Your task to perform on an android device: View the shopping cart on bestbuy. Search for alienware area 51 on bestbuy, select the first entry, and add it to the cart. Image 0: 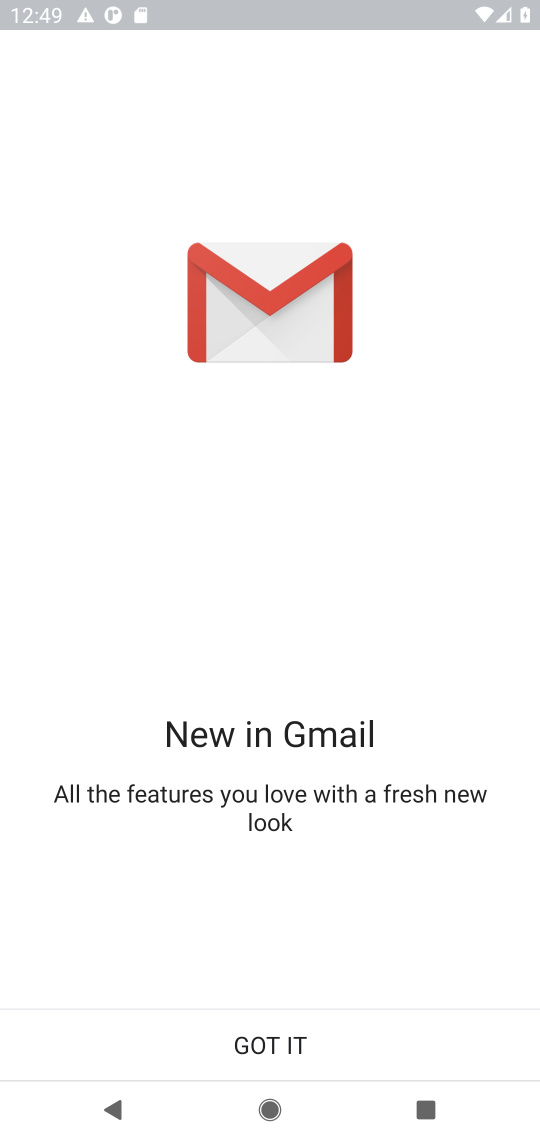
Step 0: press home button
Your task to perform on an android device: View the shopping cart on bestbuy. Search for alienware area 51 on bestbuy, select the first entry, and add it to the cart. Image 1: 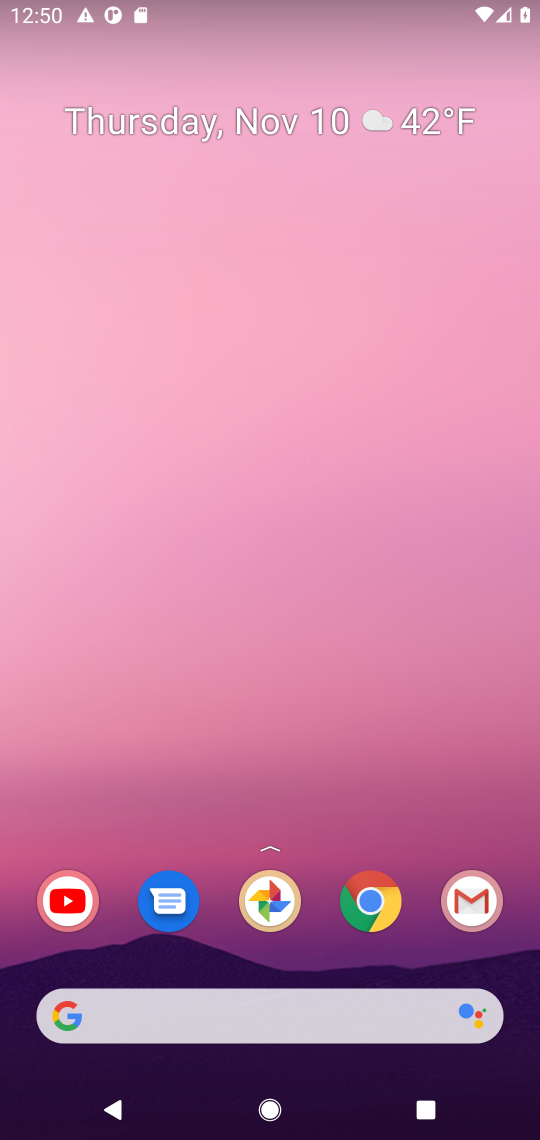
Step 1: drag from (340, 843) to (305, 11)
Your task to perform on an android device: View the shopping cart on bestbuy. Search for alienware area 51 on bestbuy, select the first entry, and add it to the cart. Image 2: 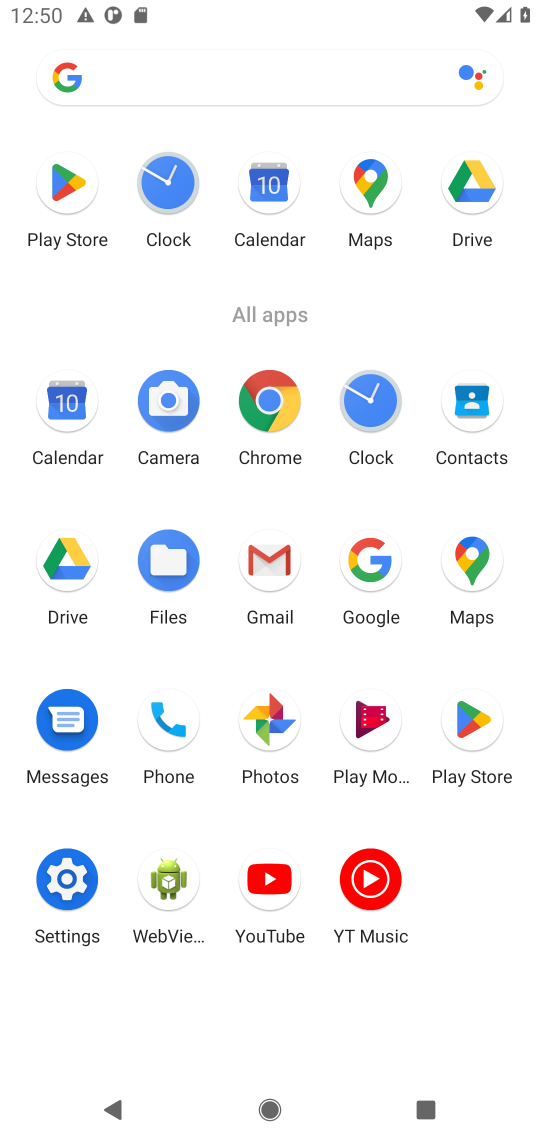
Step 2: click (263, 413)
Your task to perform on an android device: View the shopping cart on bestbuy. Search for alienware area 51 on bestbuy, select the first entry, and add it to the cart. Image 3: 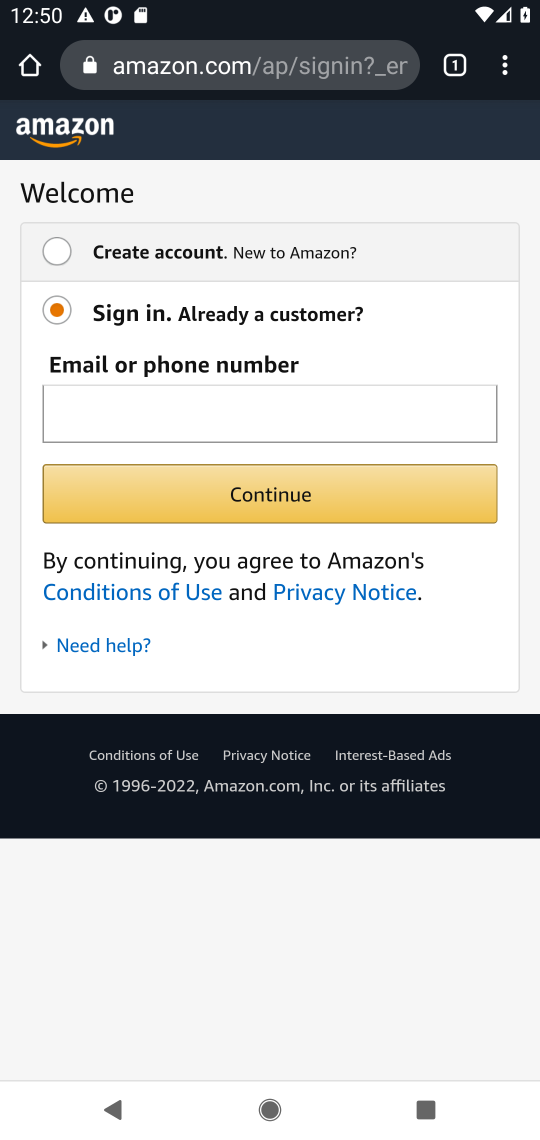
Step 3: click (166, 63)
Your task to perform on an android device: View the shopping cart on bestbuy. Search for alienware area 51 on bestbuy, select the first entry, and add it to the cart. Image 4: 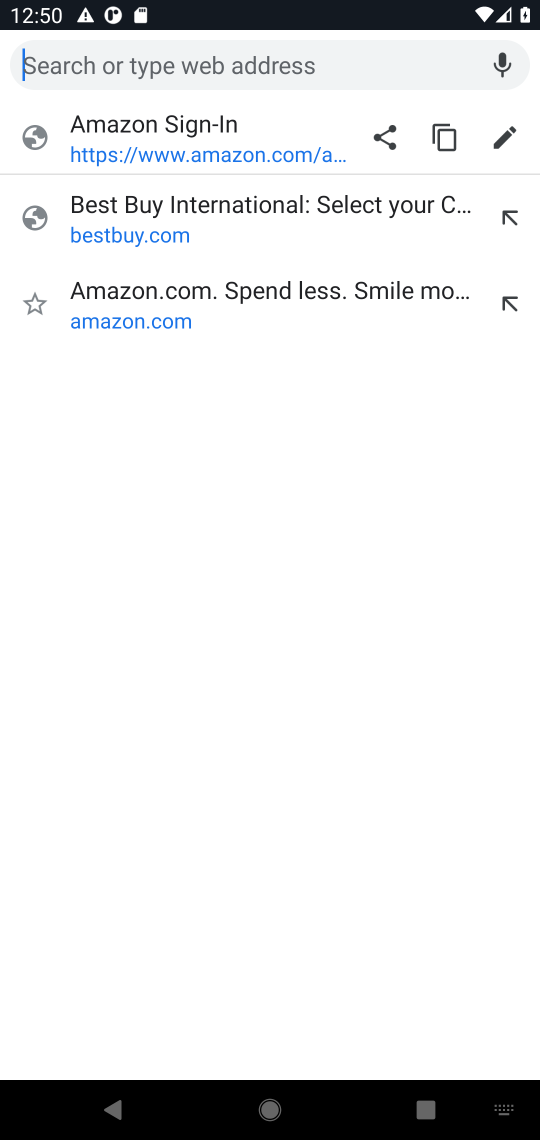
Step 4: type "bestbuy"
Your task to perform on an android device: View the shopping cart on bestbuy. Search for alienware area 51 on bestbuy, select the first entry, and add it to the cart. Image 5: 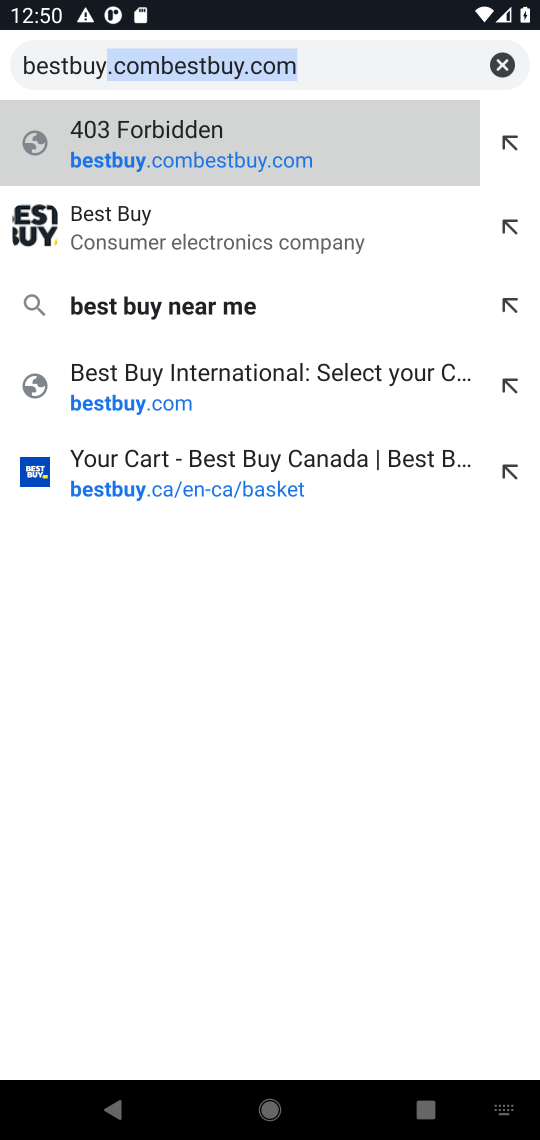
Step 5: press enter
Your task to perform on an android device: View the shopping cart on bestbuy. Search for alienware area 51 on bestbuy, select the first entry, and add it to the cart. Image 6: 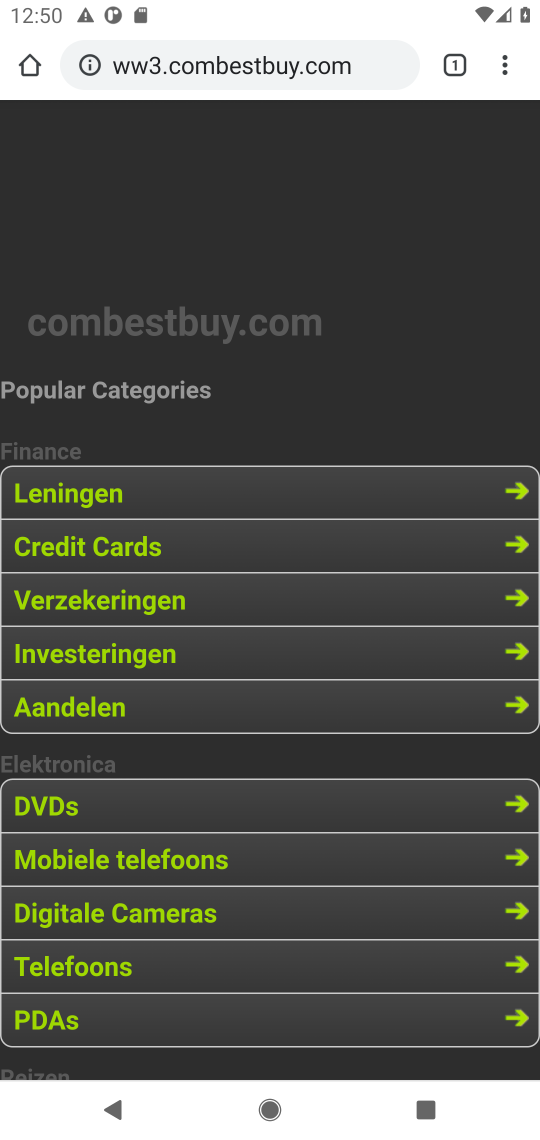
Step 6: click (315, 69)
Your task to perform on an android device: View the shopping cart on bestbuy. Search for alienware area 51 on bestbuy, select the first entry, and add it to the cart. Image 7: 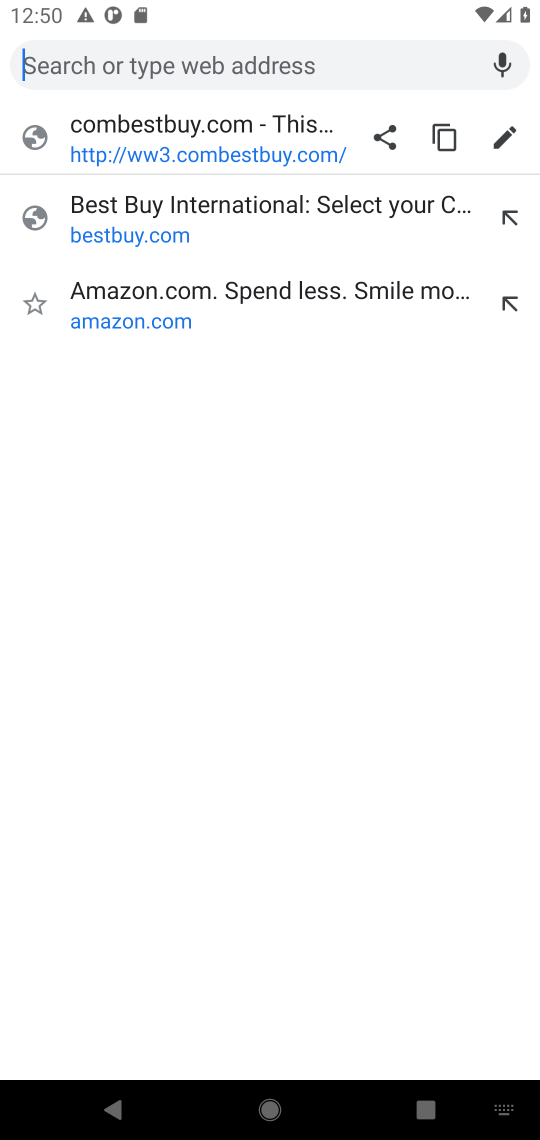
Step 7: type "bestbuy"
Your task to perform on an android device: View the shopping cart on bestbuy. Search for alienware area 51 on bestbuy, select the first entry, and add it to the cart. Image 8: 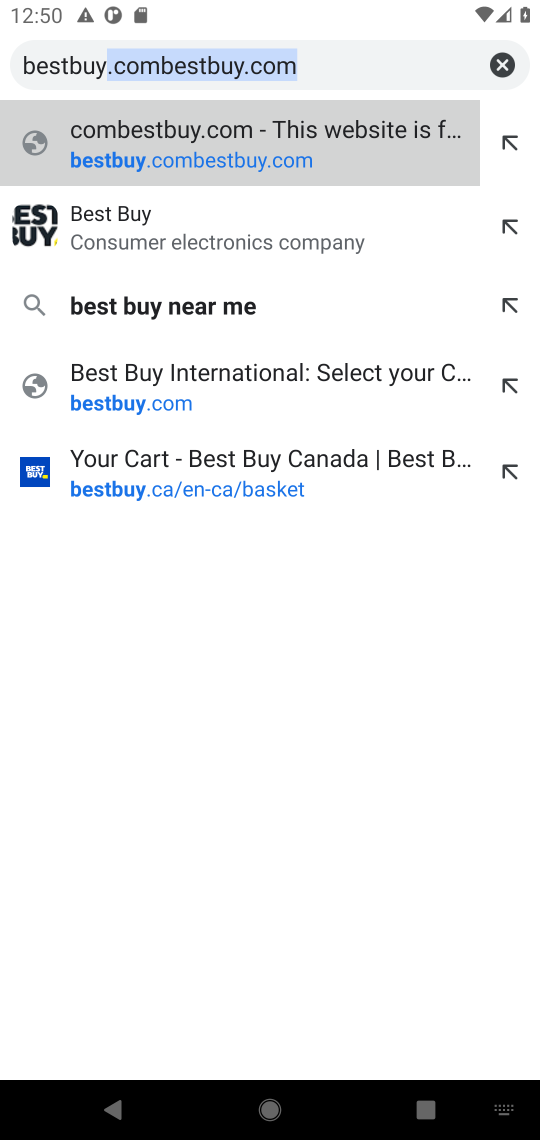
Step 8: press enter
Your task to perform on an android device: View the shopping cart on bestbuy. Search for alienware area 51 on bestbuy, select the first entry, and add it to the cart. Image 9: 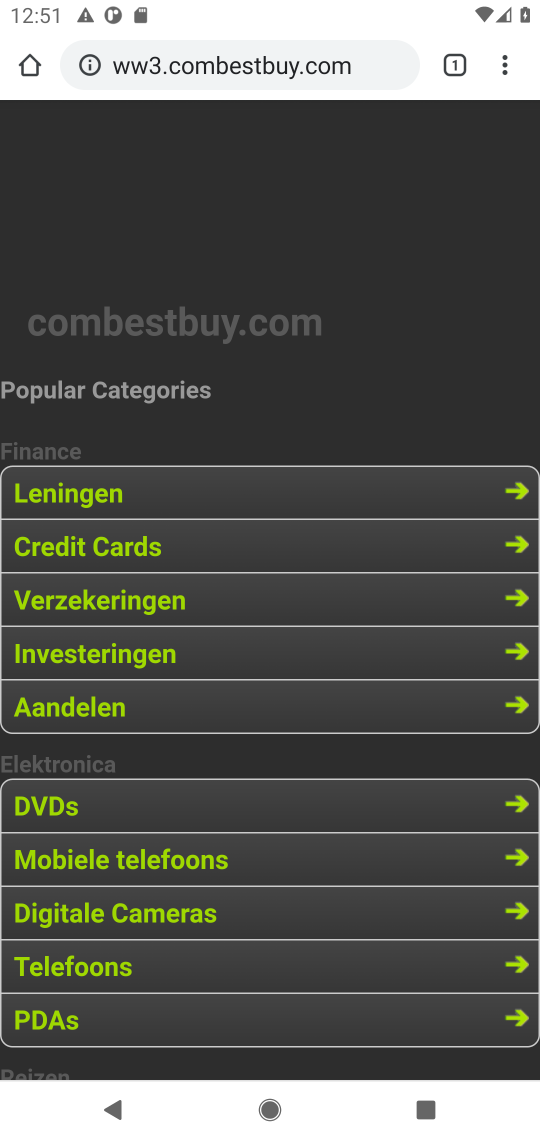
Step 9: click (377, 154)
Your task to perform on an android device: View the shopping cart on bestbuy. Search for alienware area 51 on bestbuy, select the first entry, and add it to the cart. Image 10: 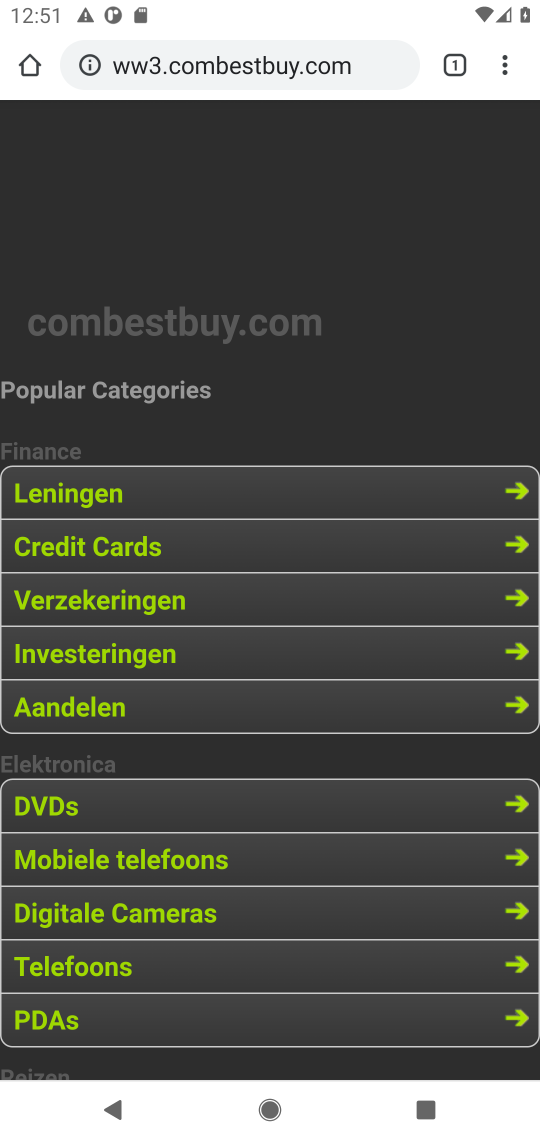
Step 10: click (217, 65)
Your task to perform on an android device: View the shopping cart on bestbuy. Search for alienware area 51 on bestbuy, select the first entry, and add it to the cart. Image 11: 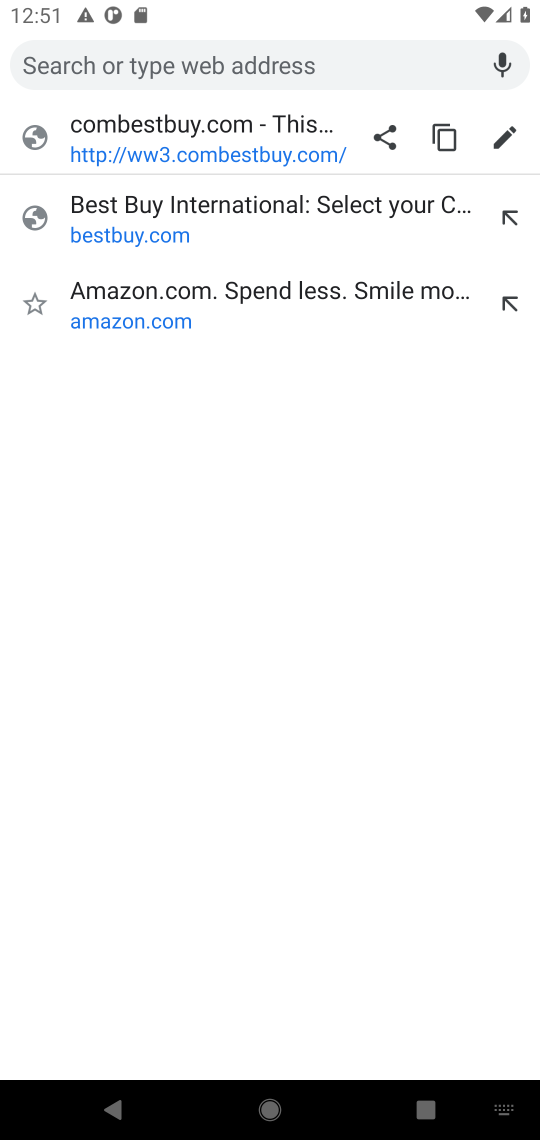
Step 11: type "bestbuy"
Your task to perform on an android device: View the shopping cart on bestbuy. Search for alienware area 51 on bestbuy, select the first entry, and add it to the cart. Image 12: 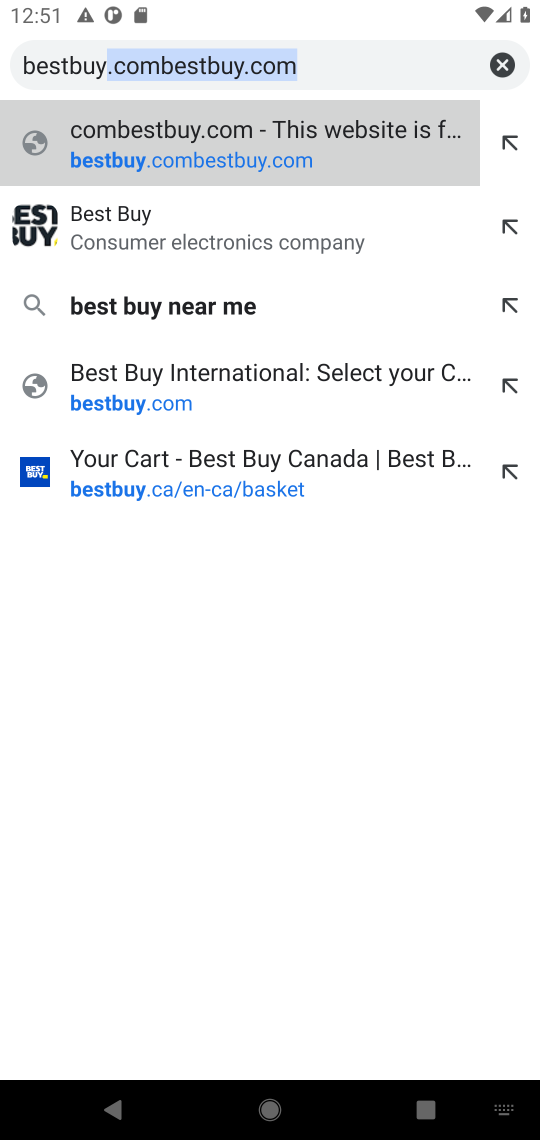
Step 12: press enter
Your task to perform on an android device: View the shopping cart on bestbuy. Search for alienware area 51 on bestbuy, select the first entry, and add it to the cart. Image 13: 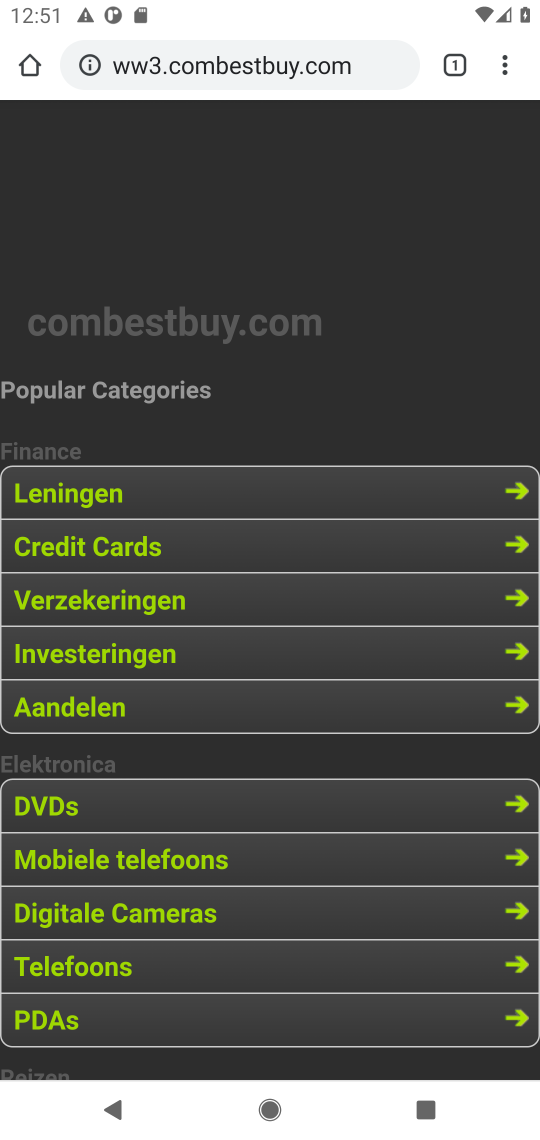
Step 13: task complete